Your task to perform on an android device: toggle wifi Image 0: 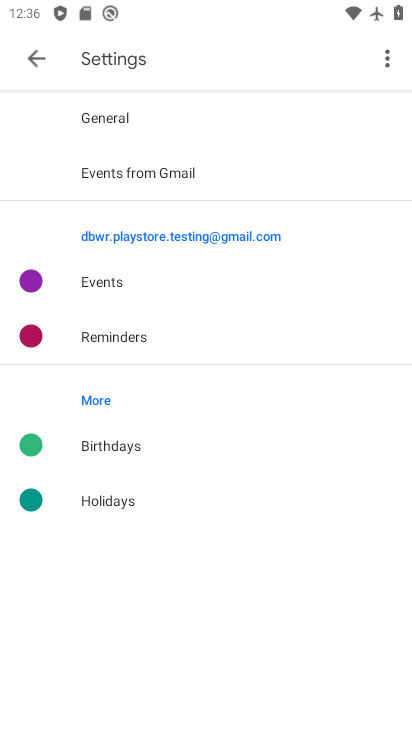
Step 0: press home button
Your task to perform on an android device: toggle wifi Image 1: 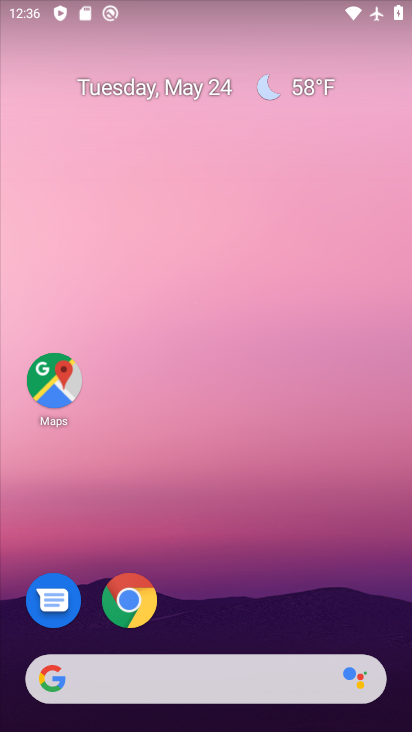
Step 1: drag from (291, 584) to (175, 9)
Your task to perform on an android device: toggle wifi Image 2: 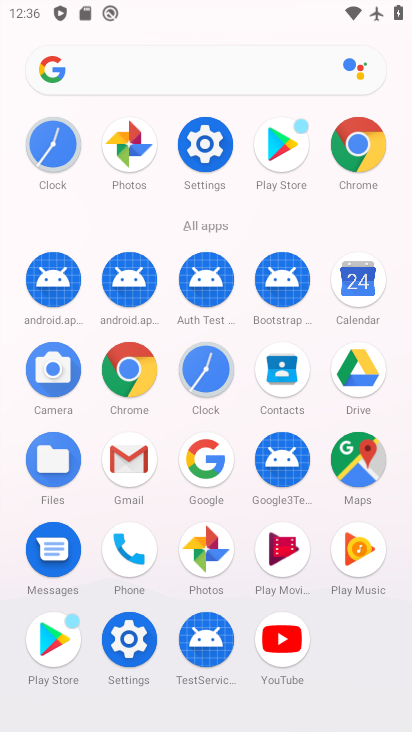
Step 2: click (208, 152)
Your task to perform on an android device: toggle wifi Image 3: 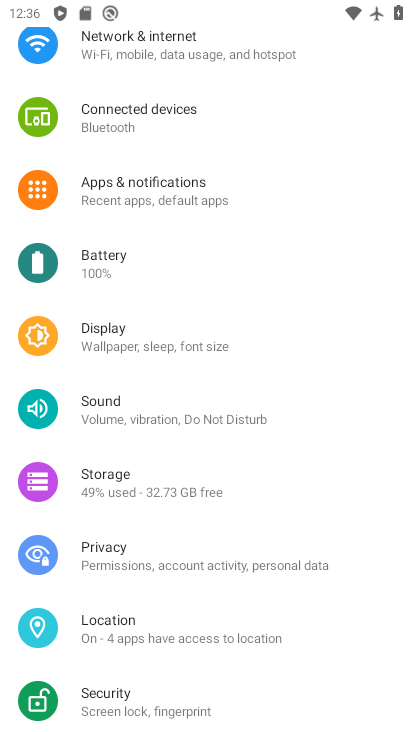
Step 3: drag from (246, 125) to (250, 608)
Your task to perform on an android device: toggle wifi Image 4: 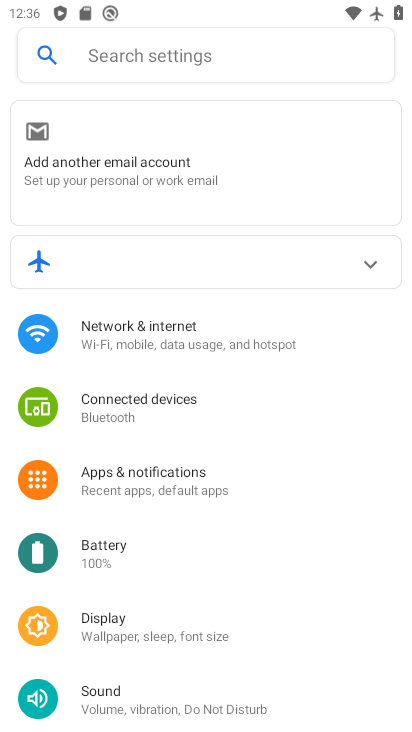
Step 4: click (214, 342)
Your task to perform on an android device: toggle wifi Image 5: 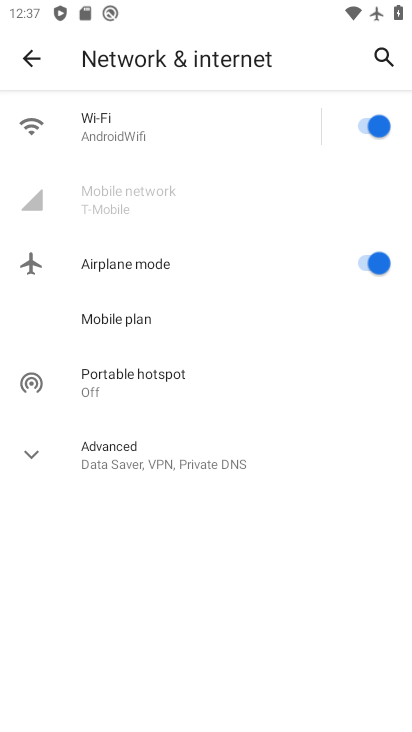
Step 5: click (371, 125)
Your task to perform on an android device: toggle wifi Image 6: 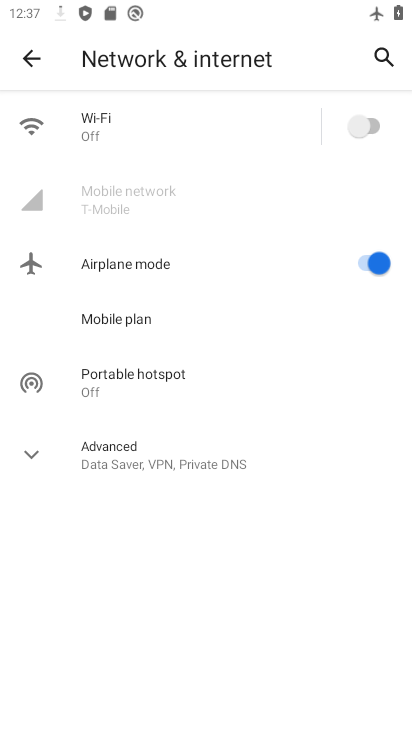
Step 6: task complete